Your task to perform on an android device: Is it going to rain tomorrow? Image 0: 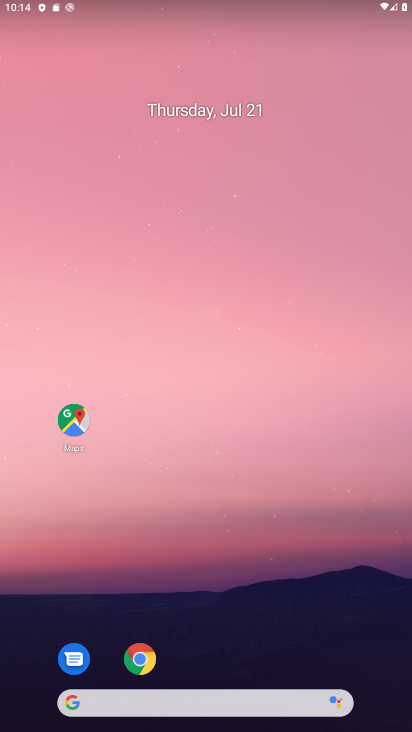
Step 0: drag from (221, 667) to (218, 137)
Your task to perform on an android device: Is it going to rain tomorrow? Image 1: 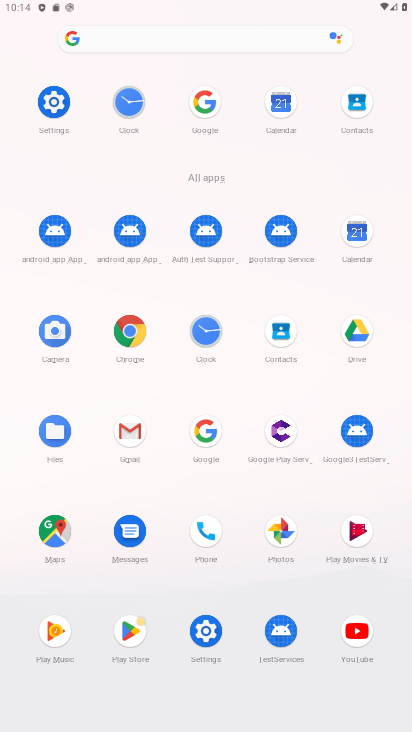
Step 1: click (207, 434)
Your task to perform on an android device: Is it going to rain tomorrow? Image 2: 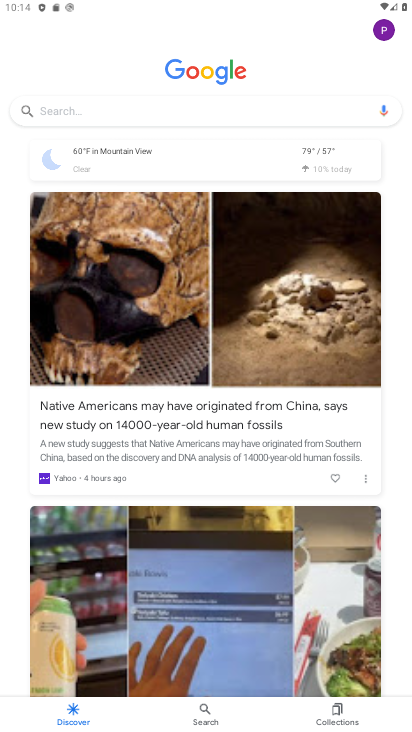
Step 2: click (88, 151)
Your task to perform on an android device: Is it going to rain tomorrow? Image 3: 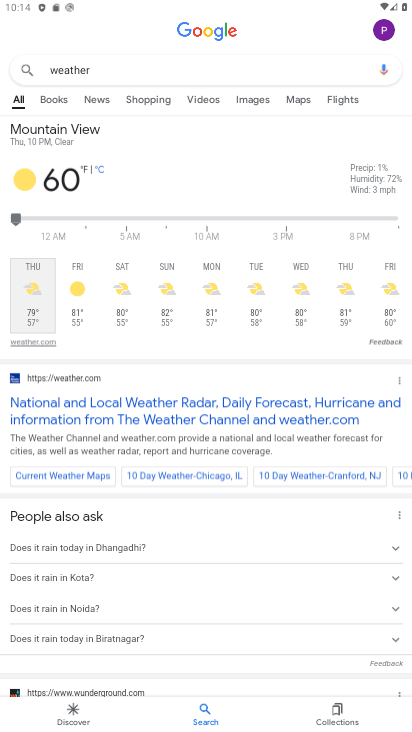
Step 3: click (69, 708)
Your task to perform on an android device: Is it going to rain tomorrow? Image 4: 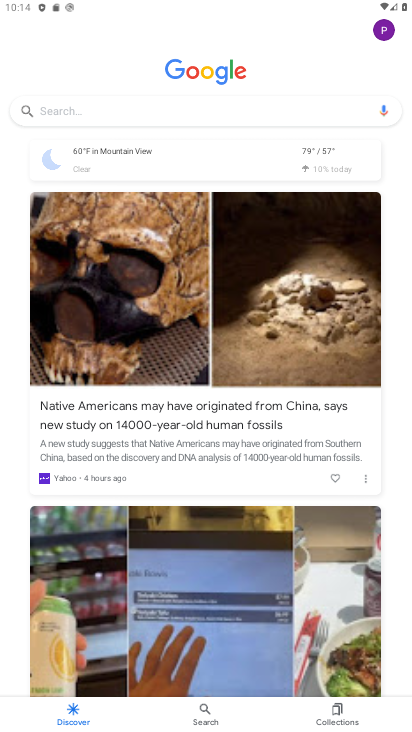
Step 4: click (69, 708)
Your task to perform on an android device: Is it going to rain tomorrow? Image 5: 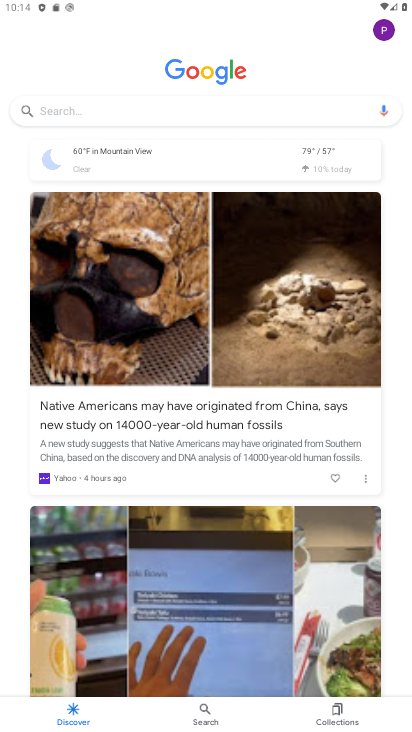
Step 5: click (69, 708)
Your task to perform on an android device: Is it going to rain tomorrow? Image 6: 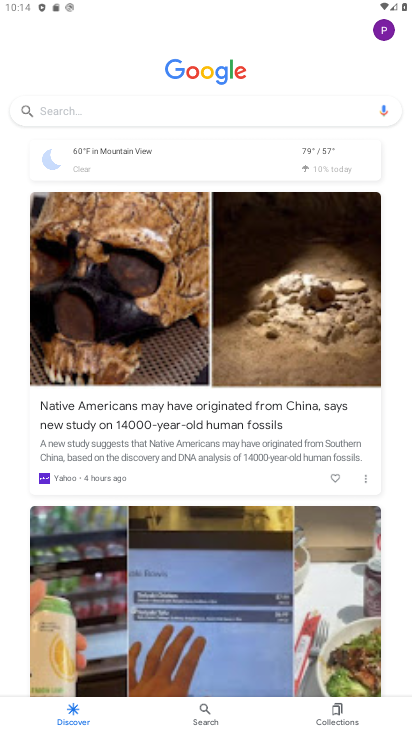
Step 6: click (69, 708)
Your task to perform on an android device: Is it going to rain tomorrow? Image 7: 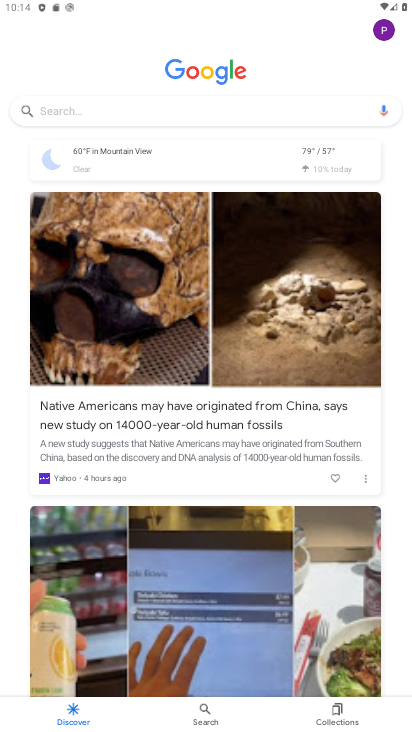
Step 7: click (69, 708)
Your task to perform on an android device: Is it going to rain tomorrow? Image 8: 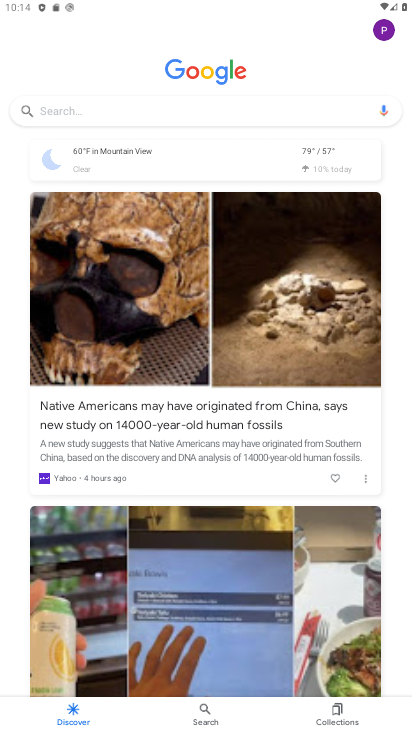
Step 8: click (69, 708)
Your task to perform on an android device: Is it going to rain tomorrow? Image 9: 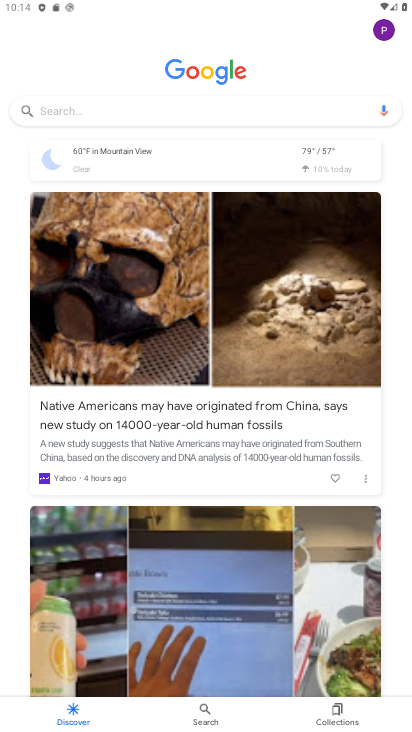
Step 9: click (46, 156)
Your task to perform on an android device: Is it going to rain tomorrow? Image 10: 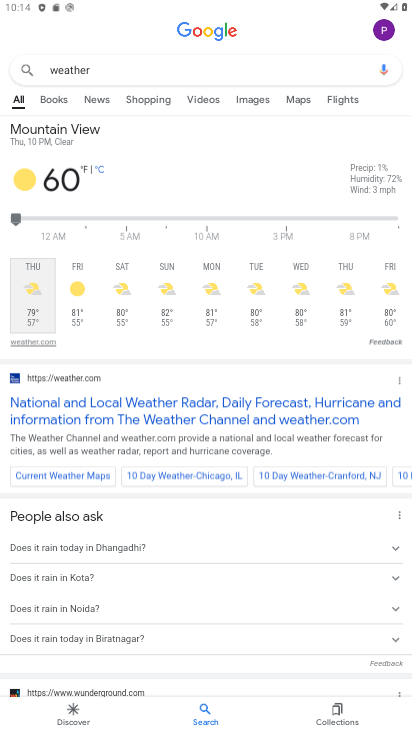
Step 10: task complete